Your task to perform on an android device: create a new album in the google photos Image 0: 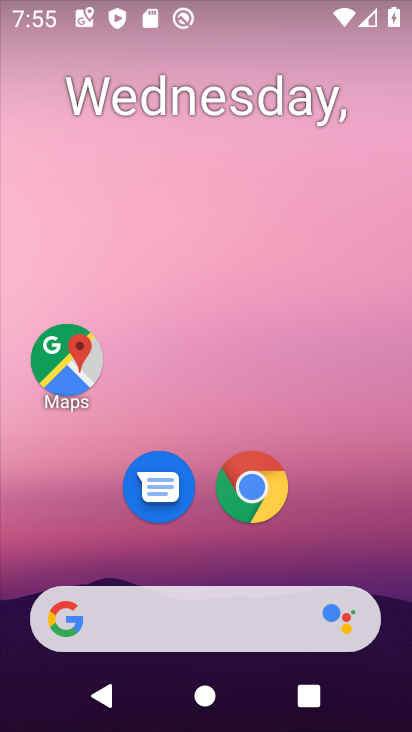
Step 0: drag from (356, 553) to (367, 281)
Your task to perform on an android device: create a new album in the google photos Image 1: 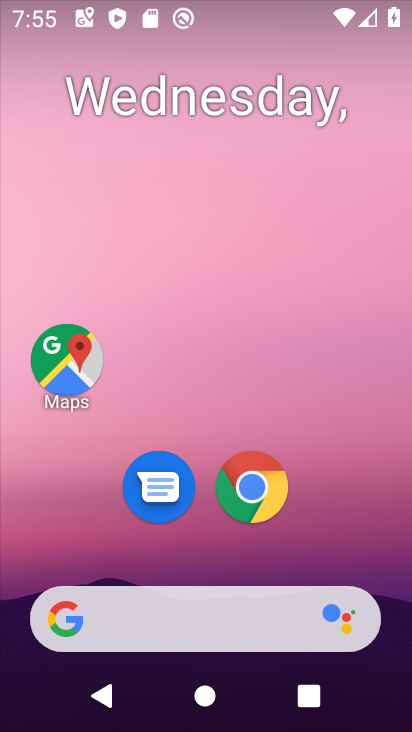
Step 1: drag from (401, 553) to (366, 163)
Your task to perform on an android device: create a new album in the google photos Image 2: 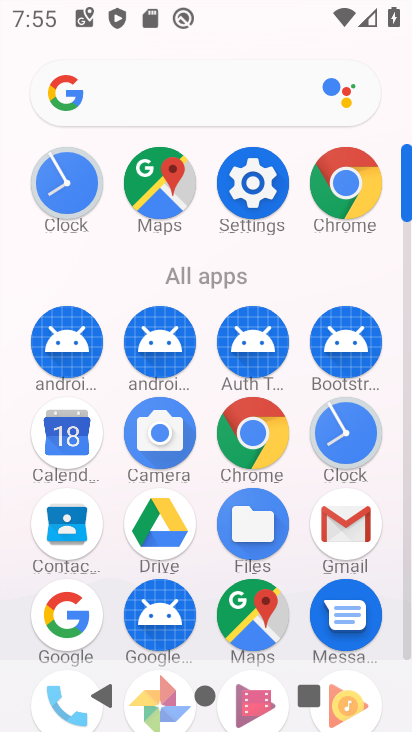
Step 2: drag from (388, 572) to (393, 471)
Your task to perform on an android device: create a new album in the google photos Image 3: 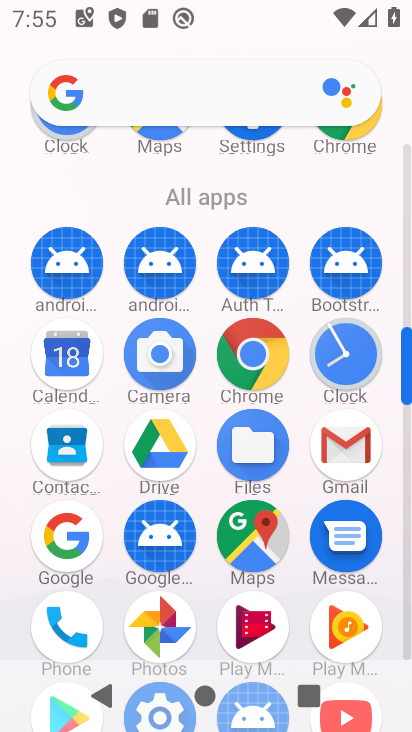
Step 3: drag from (390, 594) to (376, 460)
Your task to perform on an android device: create a new album in the google photos Image 4: 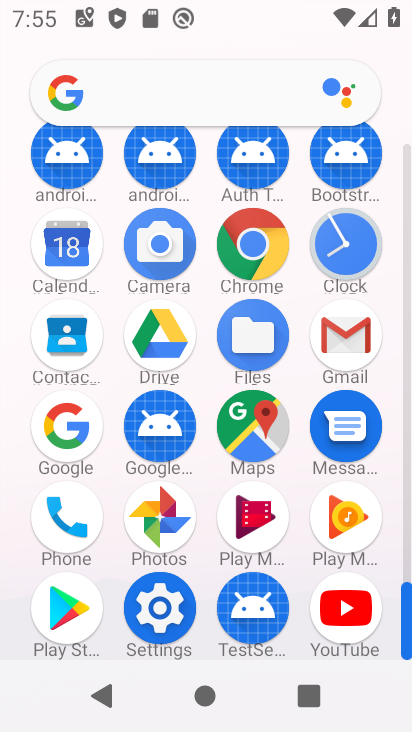
Step 4: click (178, 530)
Your task to perform on an android device: create a new album in the google photos Image 5: 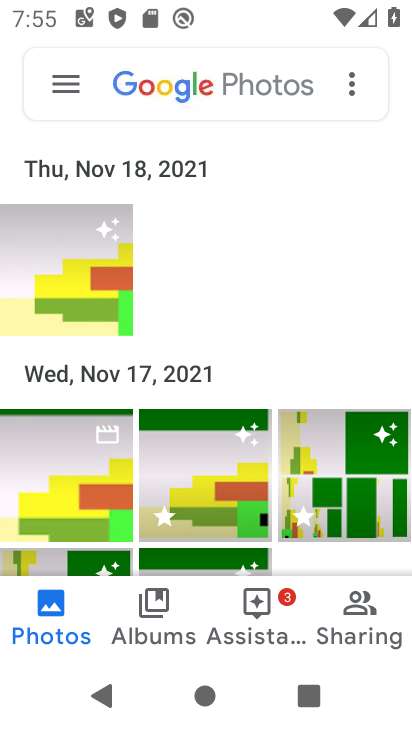
Step 5: click (182, 620)
Your task to perform on an android device: create a new album in the google photos Image 6: 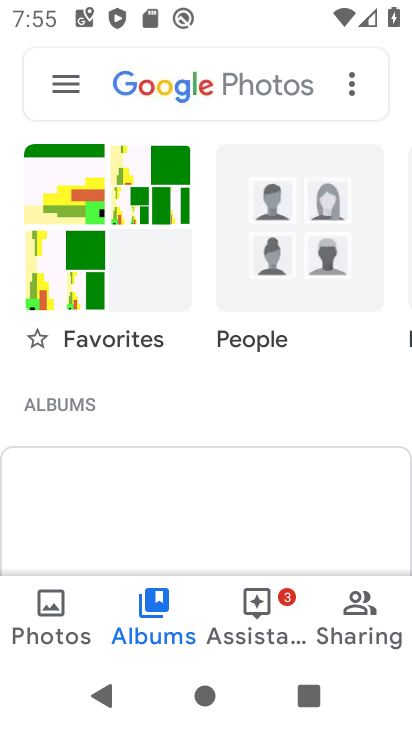
Step 6: drag from (254, 508) to (258, 405)
Your task to perform on an android device: create a new album in the google photos Image 7: 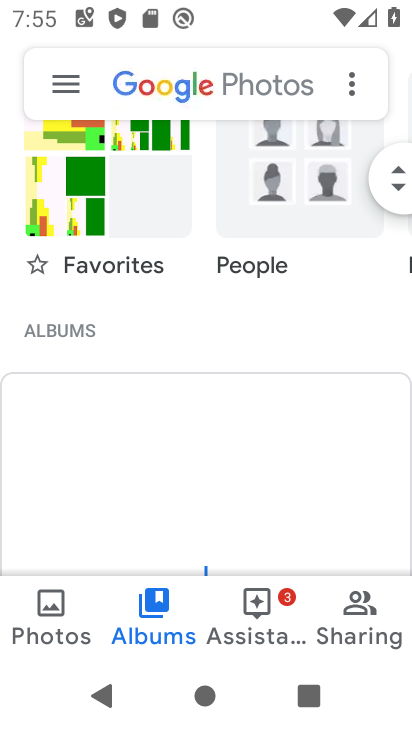
Step 7: drag from (280, 414) to (304, 268)
Your task to perform on an android device: create a new album in the google photos Image 8: 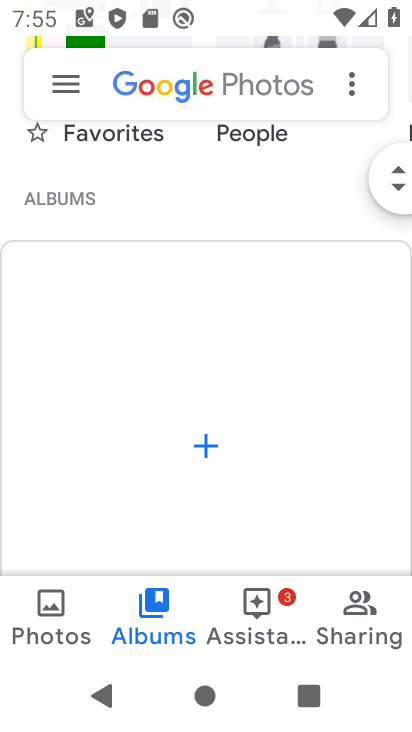
Step 8: drag from (293, 465) to (279, 304)
Your task to perform on an android device: create a new album in the google photos Image 9: 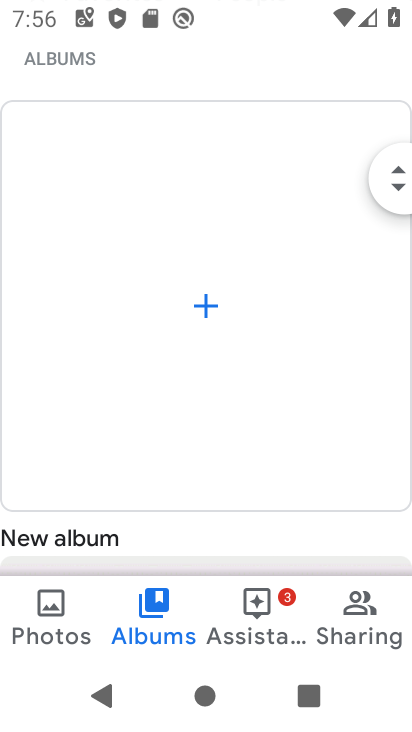
Step 9: drag from (255, 514) to (263, 273)
Your task to perform on an android device: create a new album in the google photos Image 10: 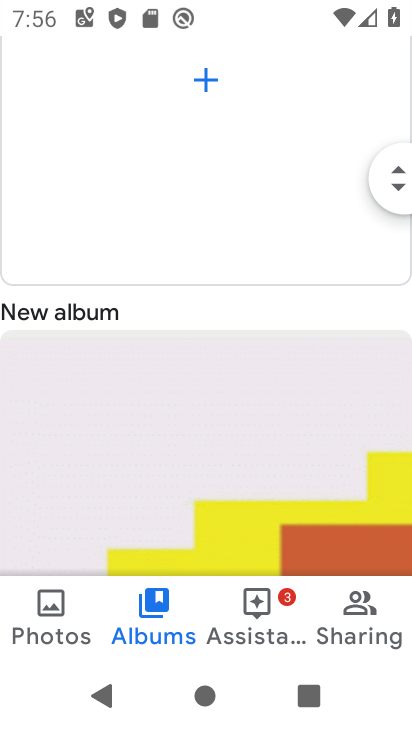
Step 10: click (138, 440)
Your task to perform on an android device: create a new album in the google photos Image 11: 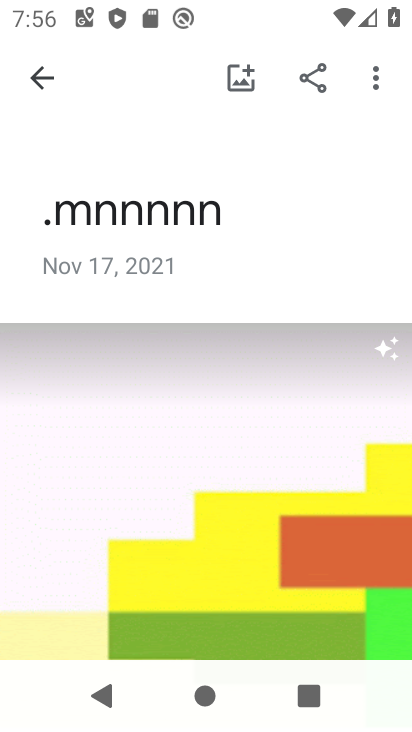
Step 11: click (38, 75)
Your task to perform on an android device: create a new album in the google photos Image 12: 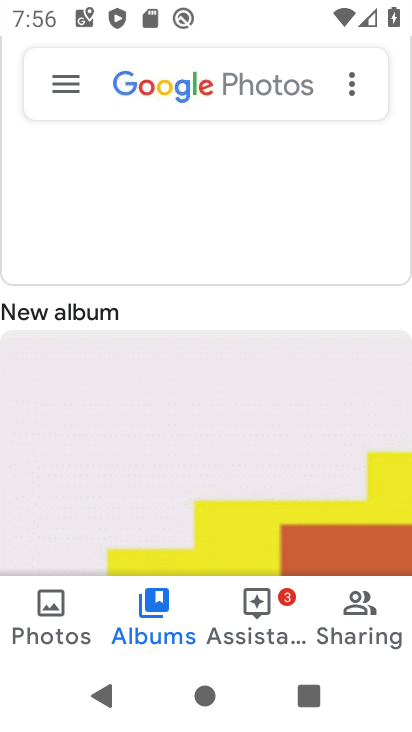
Step 12: click (351, 91)
Your task to perform on an android device: create a new album in the google photos Image 13: 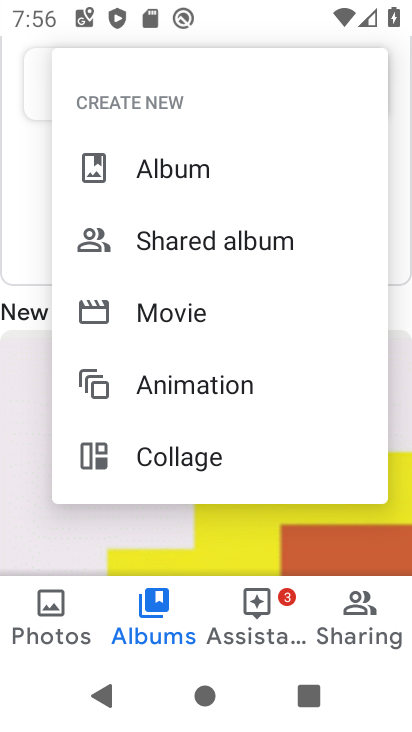
Step 13: click (182, 181)
Your task to perform on an android device: create a new album in the google photos Image 14: 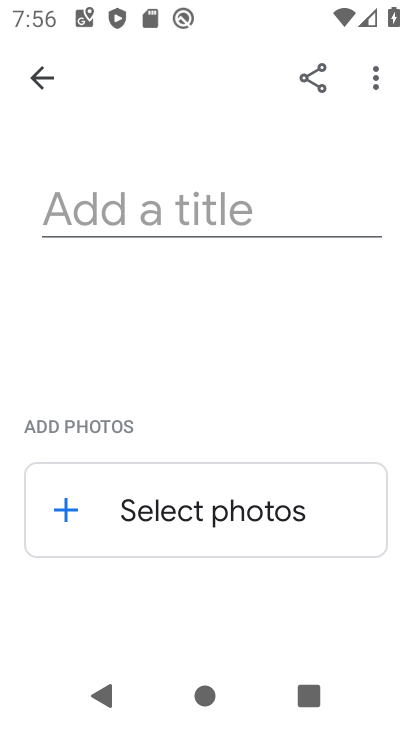
Step 14: click (203, 210)
Your task to perform on an android device: create a new album in the google photos Image 15: 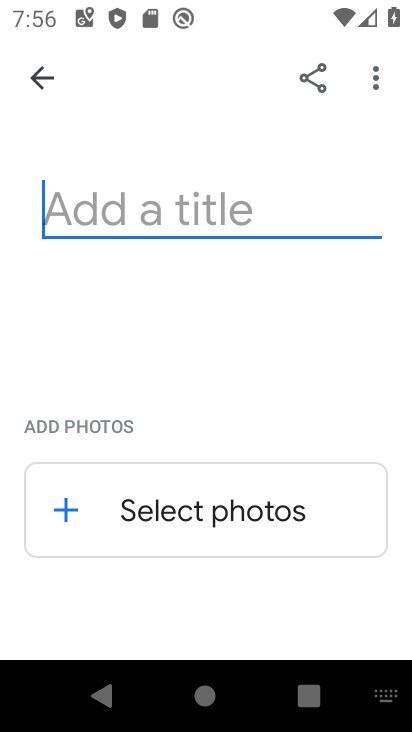
Step 15: type "fav"
Your task to perform on an android device: create a new album in the google photos Image 16: 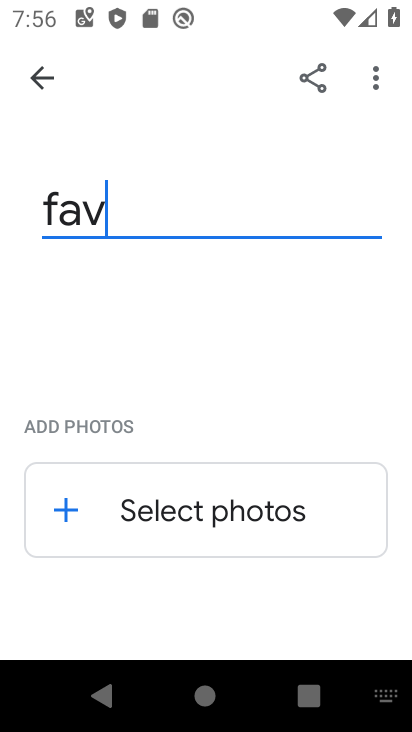
Step 16: click (93, 507)
Your task to perform on an android device: create a new album in the google photos Image 17: 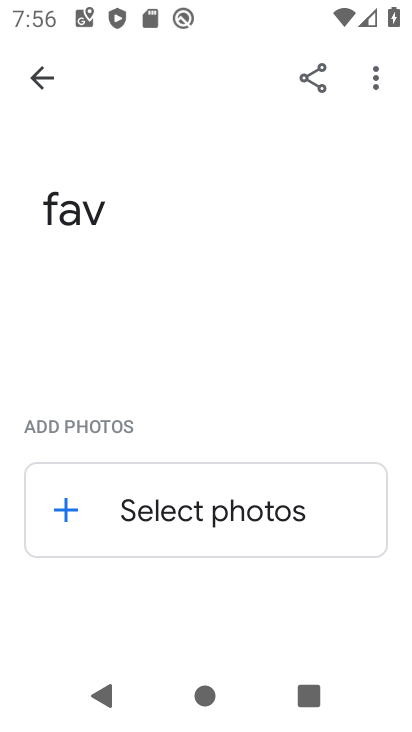
Step 17: click (91, 518)
Your task to perform on an android device: create a new album in the google photos Image 18: 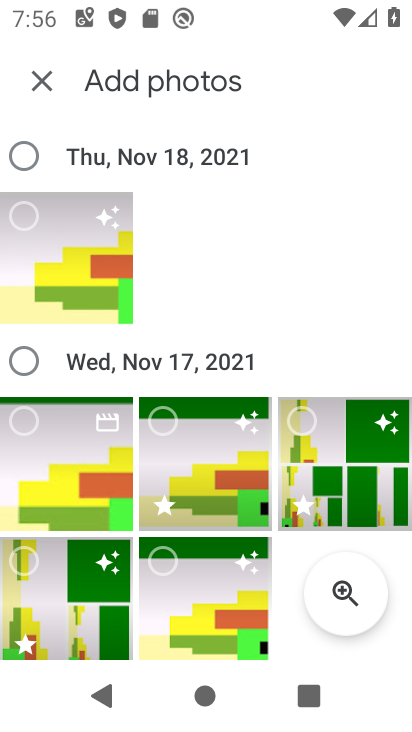
Step 18: click (42, 210)
Your task to perform on an android device: create a new album in the google photos Image 19: 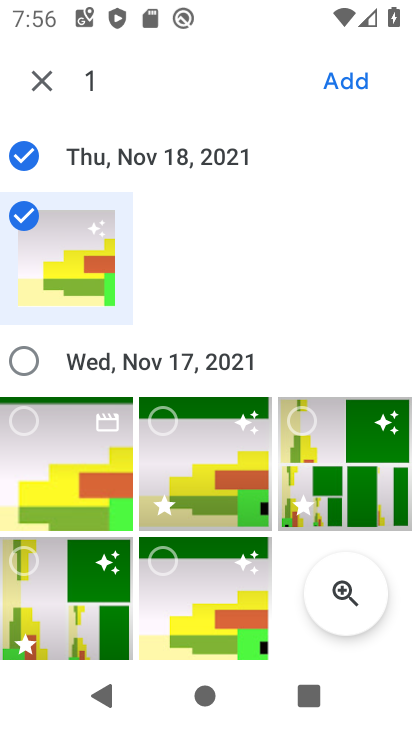
Step 19: click (338, 73)
Your task to perform on an android device: create a new album in the google photos Image 20: 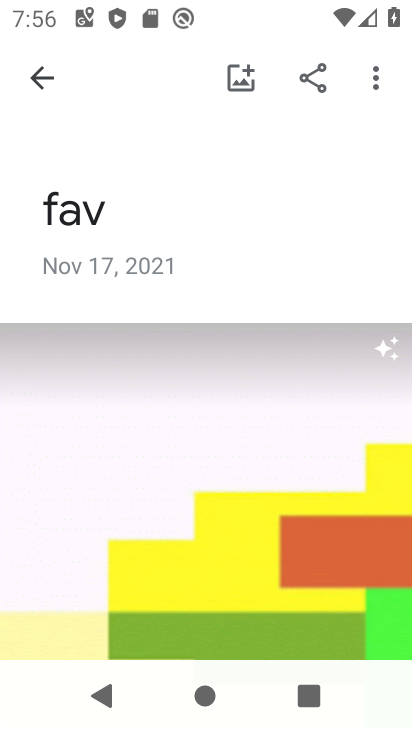
Step 20: task complete